Your task to perform on an android device: When is my next appointment? Image 0: 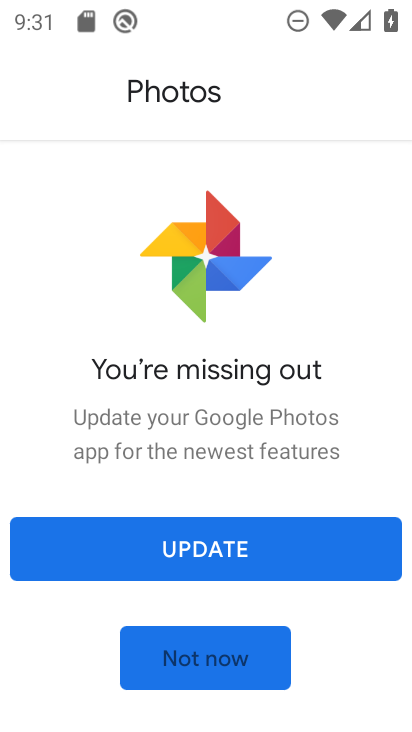
Step 0: press home button
Your task to perform on an android device: When is my next appointment? Image 1: 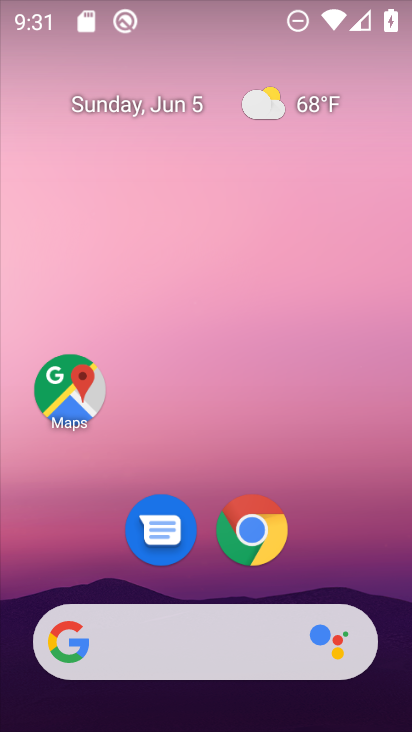
Step 1: drag from (406, 627) to (327, 42)
Your task to perform on an android device: When is my next appointment? Image 2: 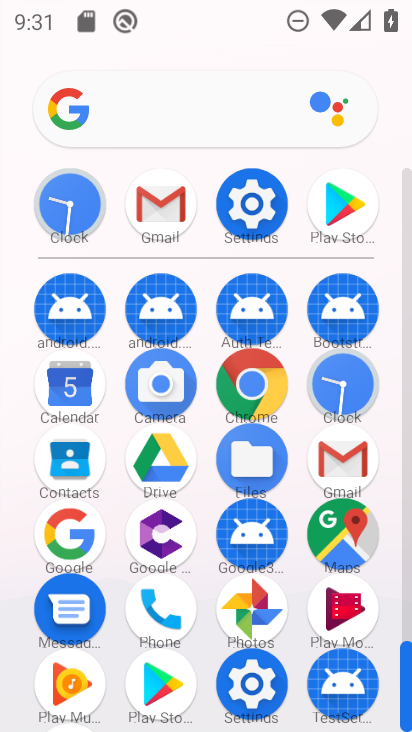
Step 2: click (70, 385)
Your task to perform on an android device: When is my next appointment? Image 3: 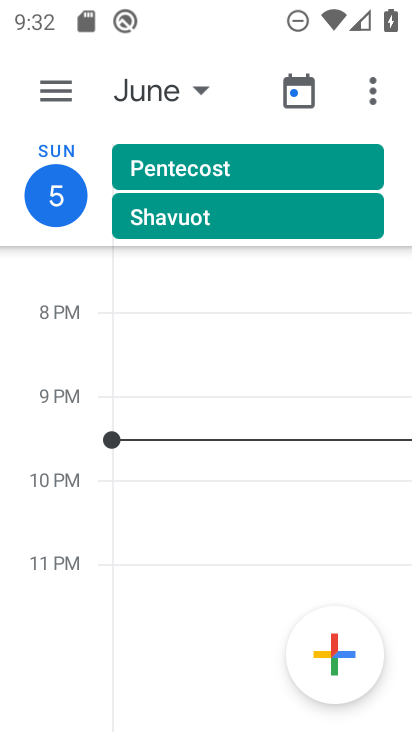
Step 3: click (53, 89)
Your task to perform on an android device: When is my next appointment? Image 4: 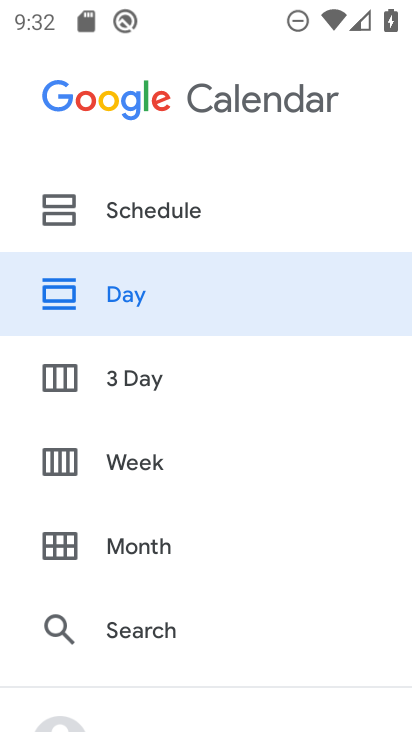
Step 4: click (152, 210)
Your task to perform on an android device: When is my next appointment? Image 5: 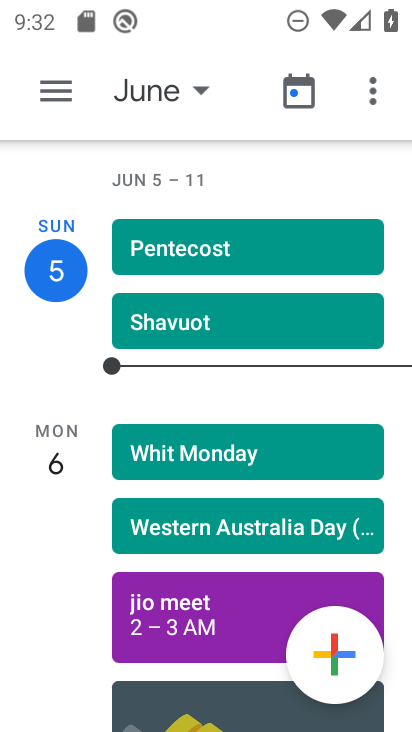
Step 5: task complete